Your task to perform on an android device: How much does a 2 bedroom apartment rent for in New York? Image 0: 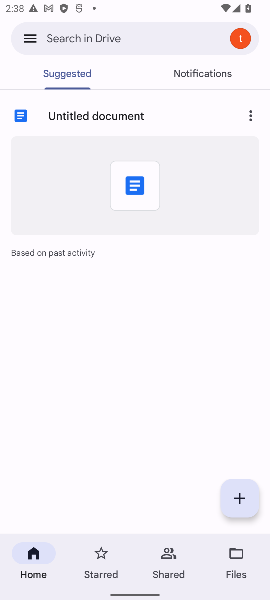
Step 0: press home button
Your task to perform on an android device: How much does a 2 bedroom apartment rent for in New York? Image 1: 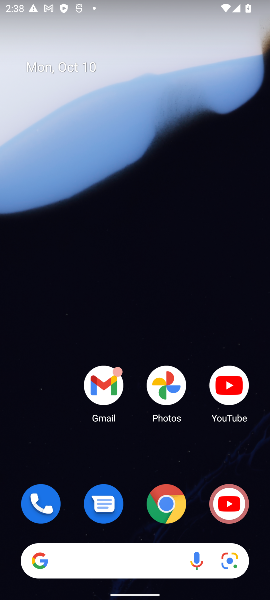
Step 1: click (161, 514)
Your task to perform on an android device: How much does a 2 bedroom apartment rent for in New York? Image 2: 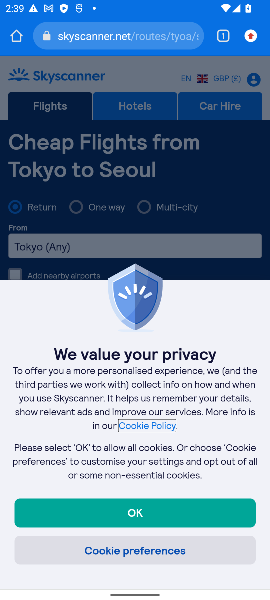
Step 2: click (99, 32)
Your task to perform on an android device: How much does a 2 bedroom apartment rent for in New York? Image 3: 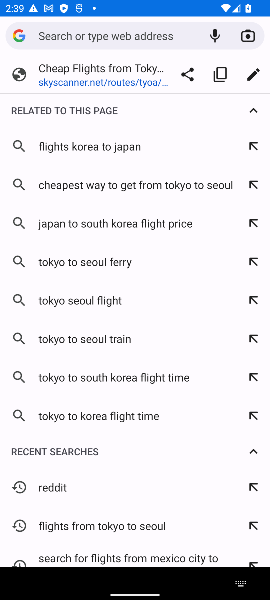
Step 3: type "How much does a 2 bedroom apartment rent for in New York?"
Your task to perform on an android device: How much does a 2 bedroom apartment rent for in New York? Image 4: 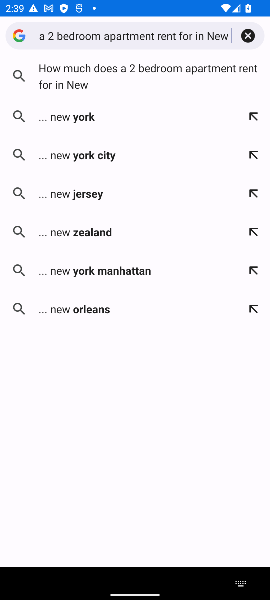
Step 4: press enter
Your task to perform on an android device: How much does a 2 bedroom apartment rent for in New York? Image 5: 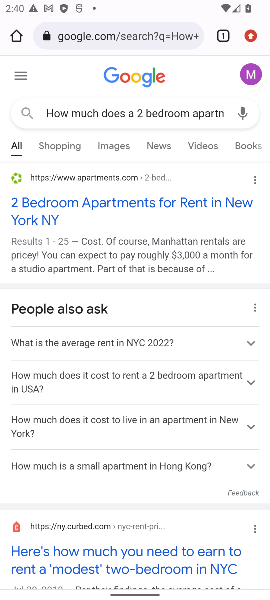
Step 5: click (45, 206)
Your task to perform on an android device: How much does a 2 bedroom apartment rent for in New York? Image 6: 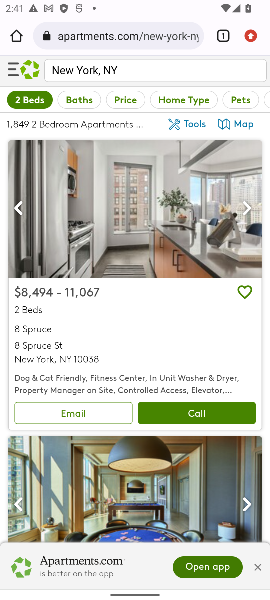
Step 6: task complete